Your task to perform on an android device: turn off picture-in-picture Image 0: 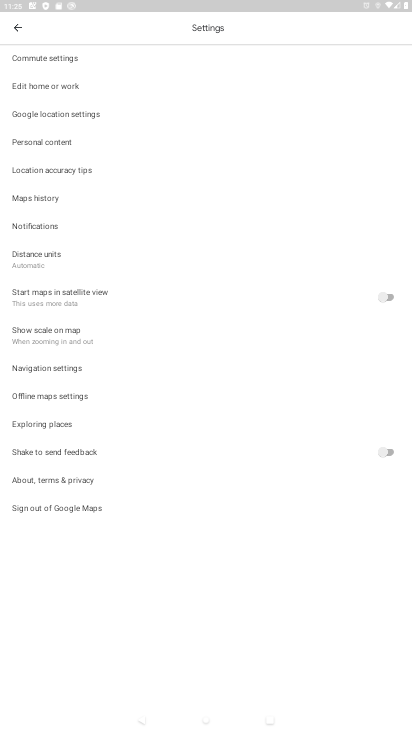
Step 0: press home button
Your task to perform on an android device: turn off picture-in-picture Image 1: 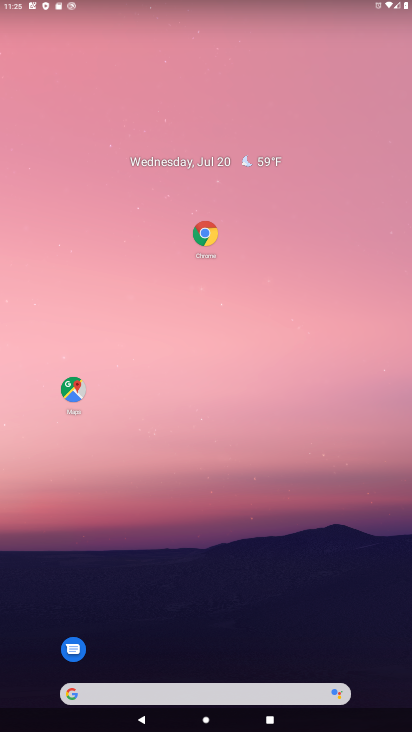
Step 1: click (204, 236)
Your task to perform on an android device: turn off picture-in-picture Image 2: 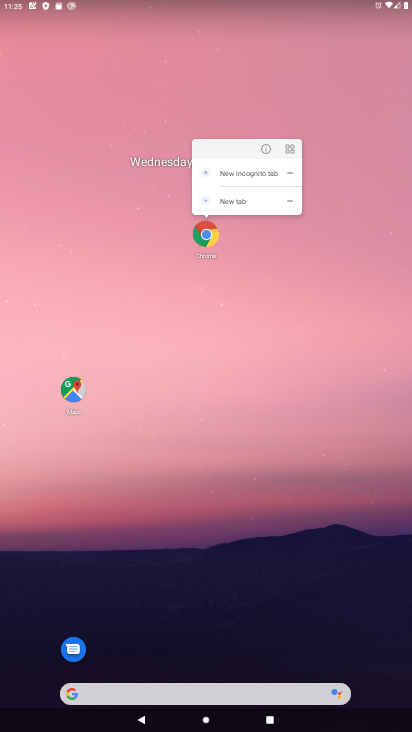
Step 2: click (263, 151)
Your task to perform on an android device: turn off picture-in-picture Image 3: 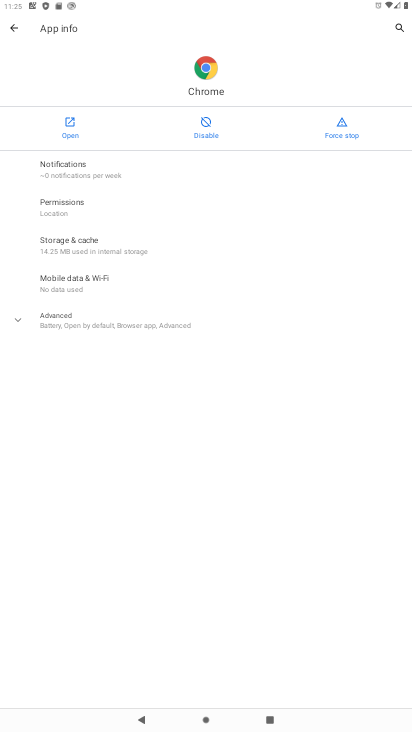
Step 3: click (65, 325)
Your task to perform on an android device: turn off picture-in-picture Image 4: 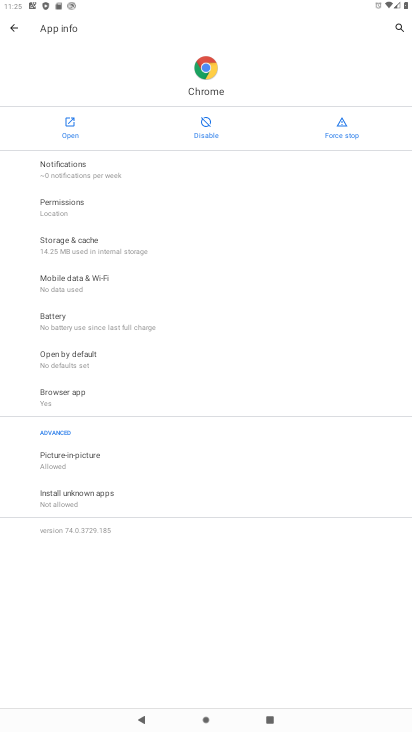
Step 4: click (82, 453)
Your task to perform on an android device: turn off picture-in-picture Image 5: 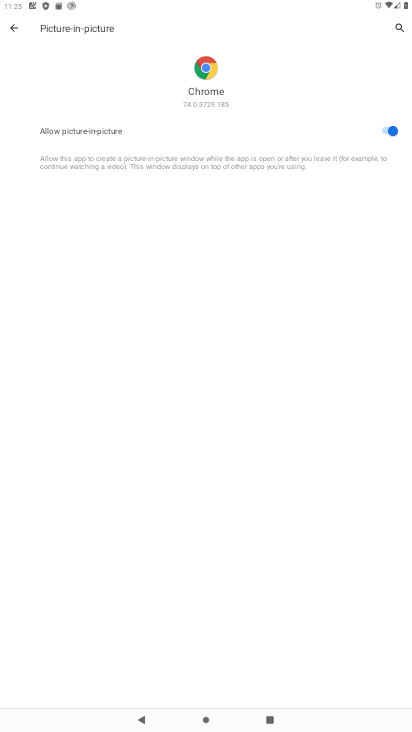
Step 5: click (398, 128)
Your task to perform on an android device: turn off picture-in-picture Image 6: 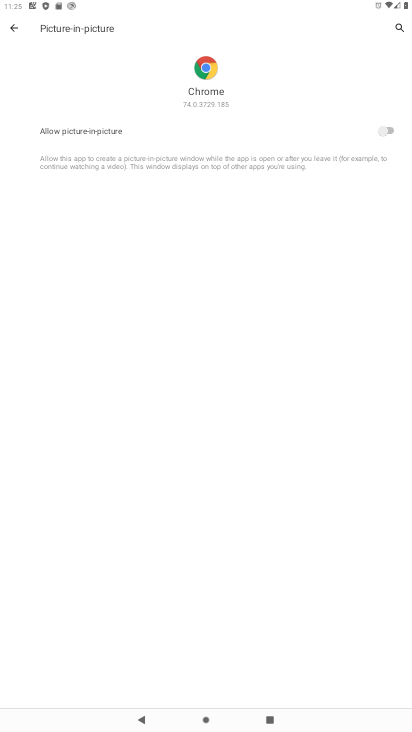
Step 6: task complete